Your task to perform on an android device: uninstall "Chime – Mobile Banking" Image 0: 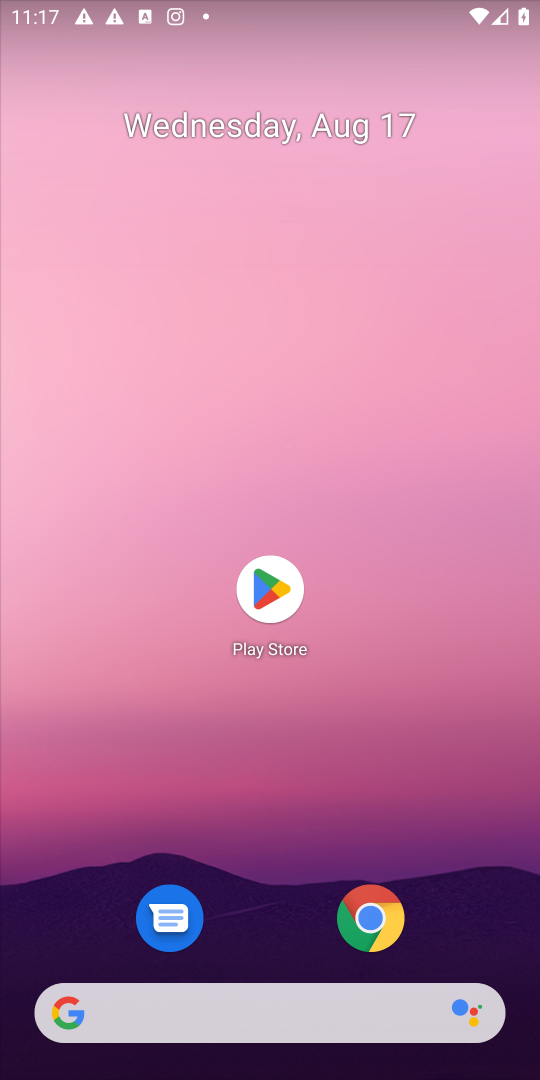
Step 0: click (263, 591)
Your task to perform on an android device: uninstall "Chime – Mobile Banking" Image 1: 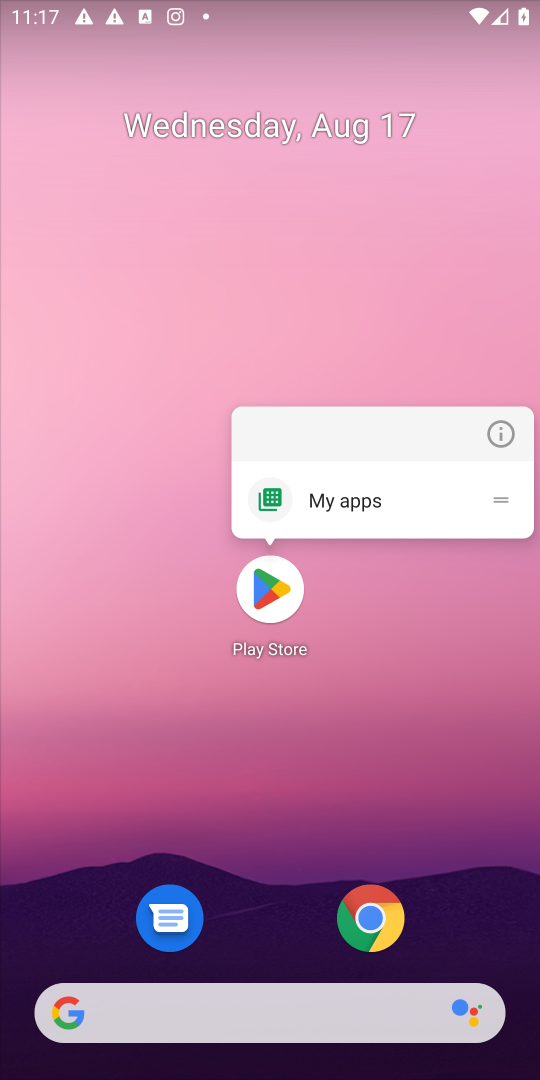
Step 1: click (277, 593)
Your task to perform on an android device: uninstall "Chime – Mobile Banking" Image 2: 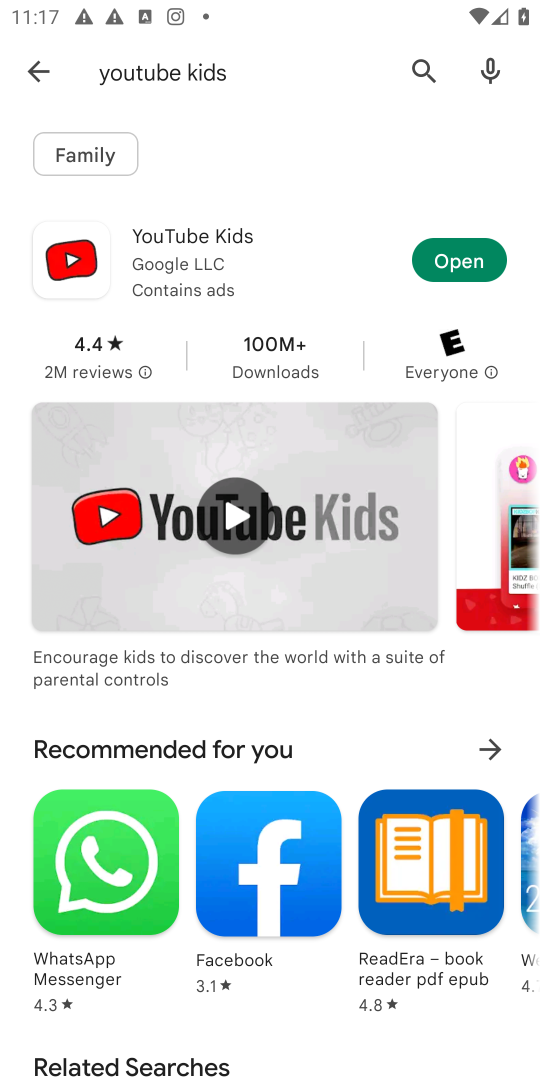
Step 2: click (421, 74)
Your task to perform on an android device: uninstall "Chime – Mobile Banking" Image 3: 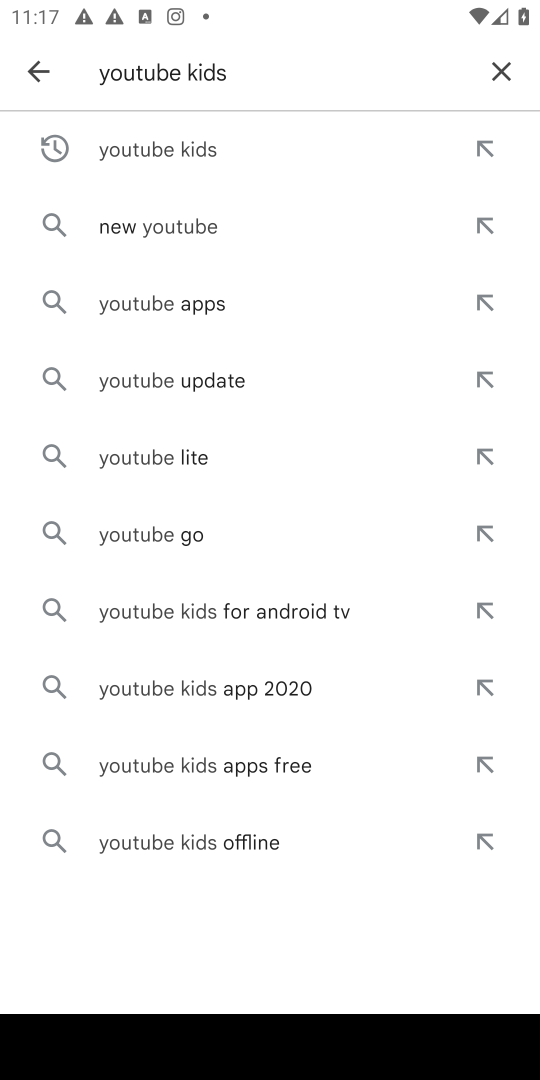
Step 3: click (502, 83)
Your task to perform on an android device: uninstall "Chime – Mobile Banking" Image 4: 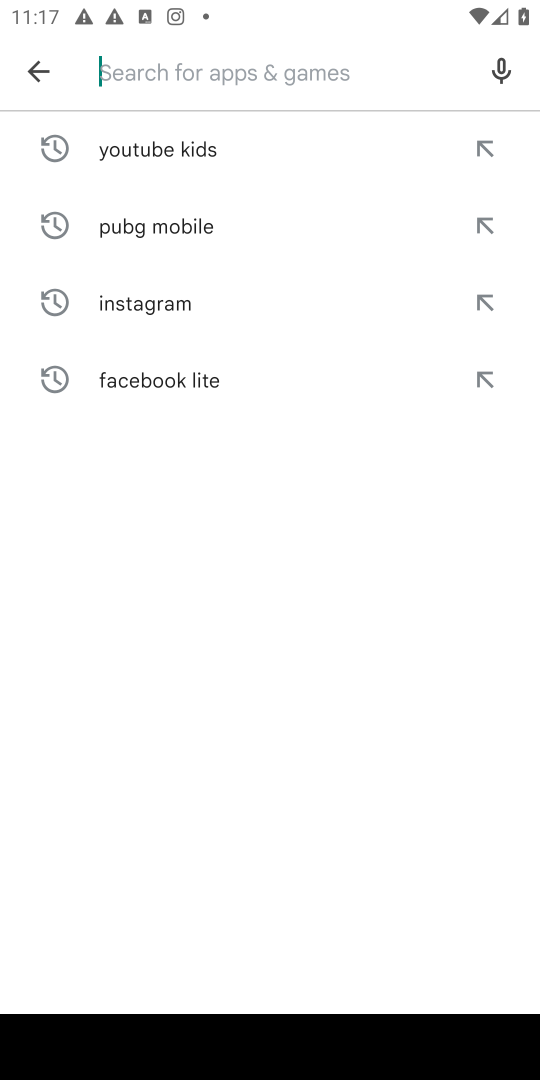
Step 4: type "Chime Mobile Banking"
Your task to perform on an android device: uninstall "Chime – Mobile Banking" Image 5: 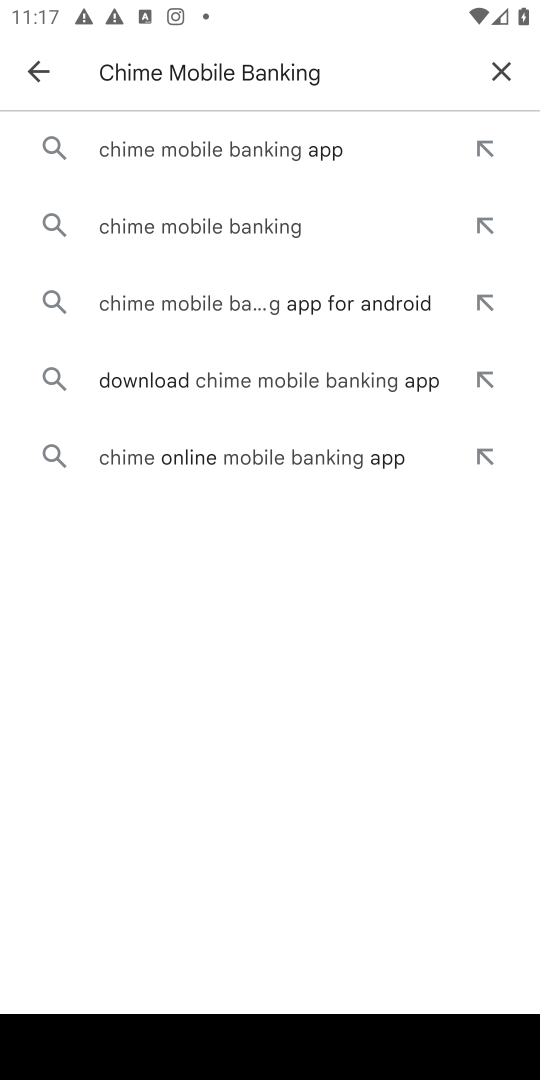
Step 5: click (207, 157)
Your task to perform on an android device: uninstall "Chime – Mobile Banking" Image 6: 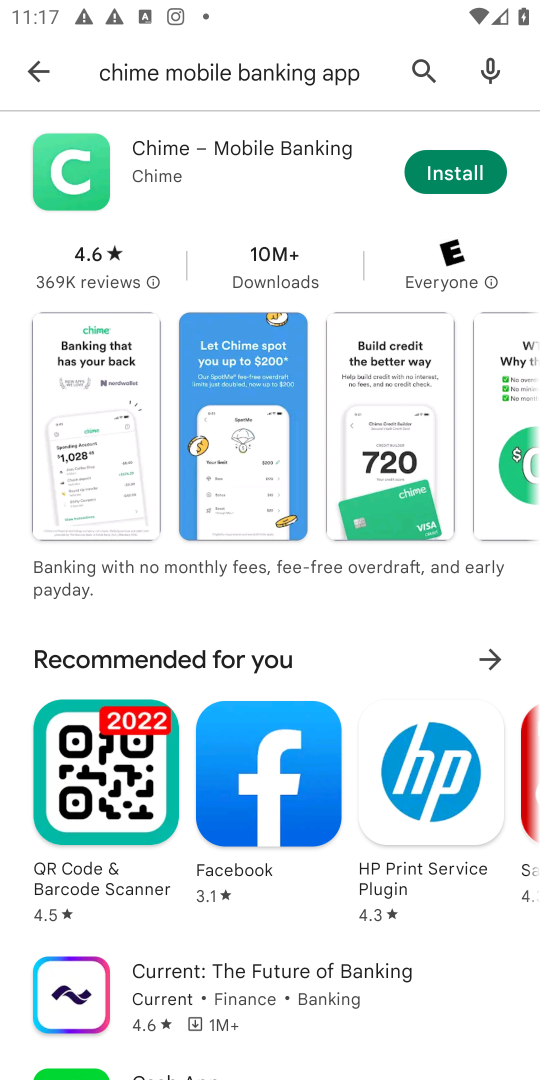
Step 6: task complete